Your task to perform on an android device: uninstall "Skype" Image 0: 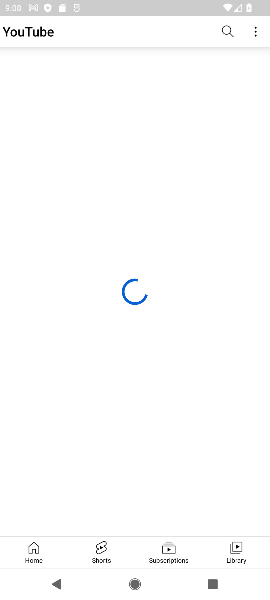
Step 0: press back button
Your task to perform on an android device: uninstall "Skype" Image 1: 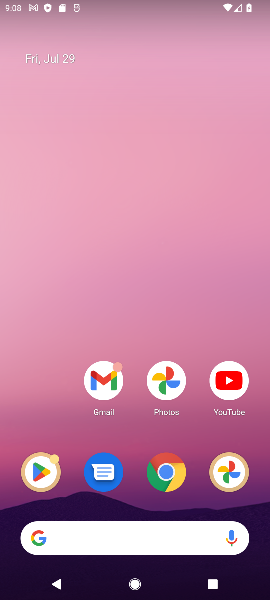
Step 1: drag from (182, 533) to (156, 169)
Your task to perform on an android device: uninstall "Skype" Image 2: 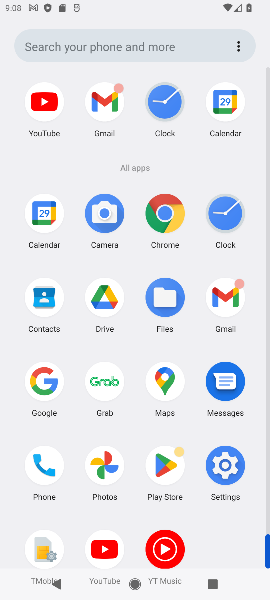
Step 2: click (155, 482)
Your task to perform on an android device: uninstall "Skype" Image 3: 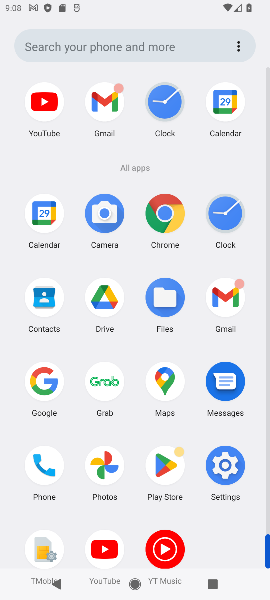
Step 3: click (155, 482)
Your task to perform on an android device: uninstall "Skype" Image 4: 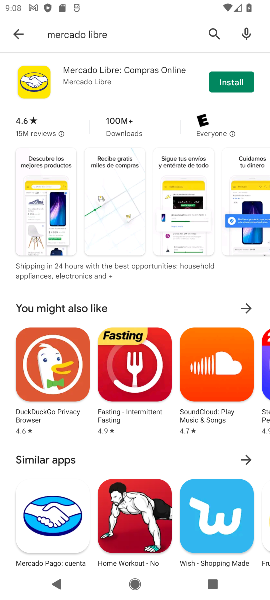
Step 4: click (25, 31)
Your task to perform on an android device: uninstall "Skype" Image 5: 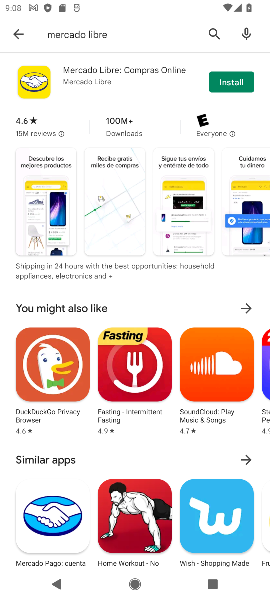
Step 5: click (16, 30)
Your task to perform on an android device: uninstall "Skype" Image 6: 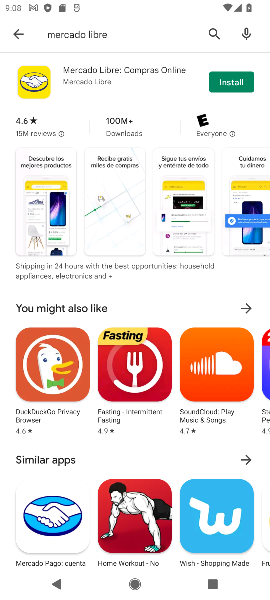
Step 6: click (13, 33)
Your task to perform on an android device: uninstall "Skype" Image 7: 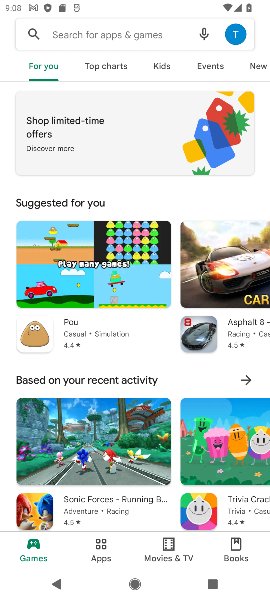
Step 7: click (66, 29)
Your task to perform on an android device: uninstall "Skype" Image 8: 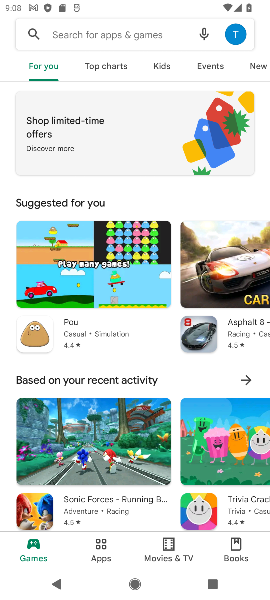
Step 8: click (65, 33)
Your task to perform on an android device: uninstall "Skype" Image 9: 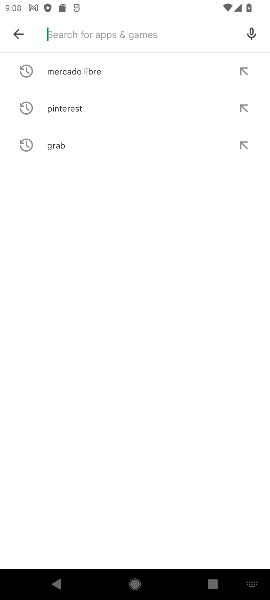
Step 9: click (63, 28)
Your task to perform on an android device: uninstall "Skype" Image 10: 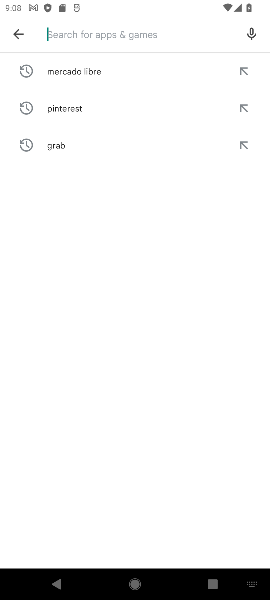
Step 10: type "skype"
Your task to perform on an android device: uninstall "Skype" Image 11: 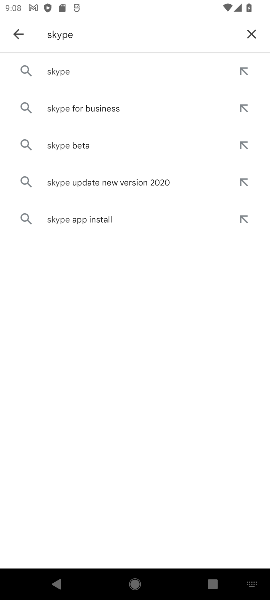
Step 11: click (63, 66)
Your task to perform on an android device: uninstall "Skype" Image 12: 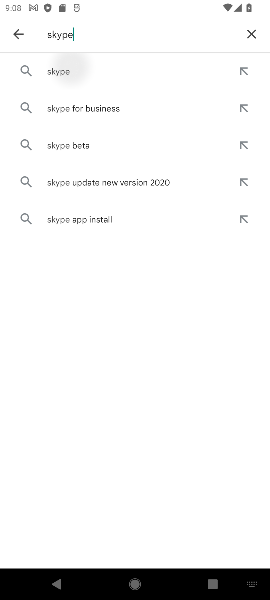
Step 12: click (61, 72)
Your task to perform on an android device: uninstall "Skype" Image 13: 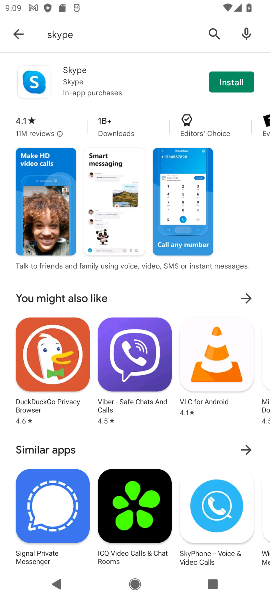
Step 13: task complete